Your task to perform on an android device: set an alarm Image 0: 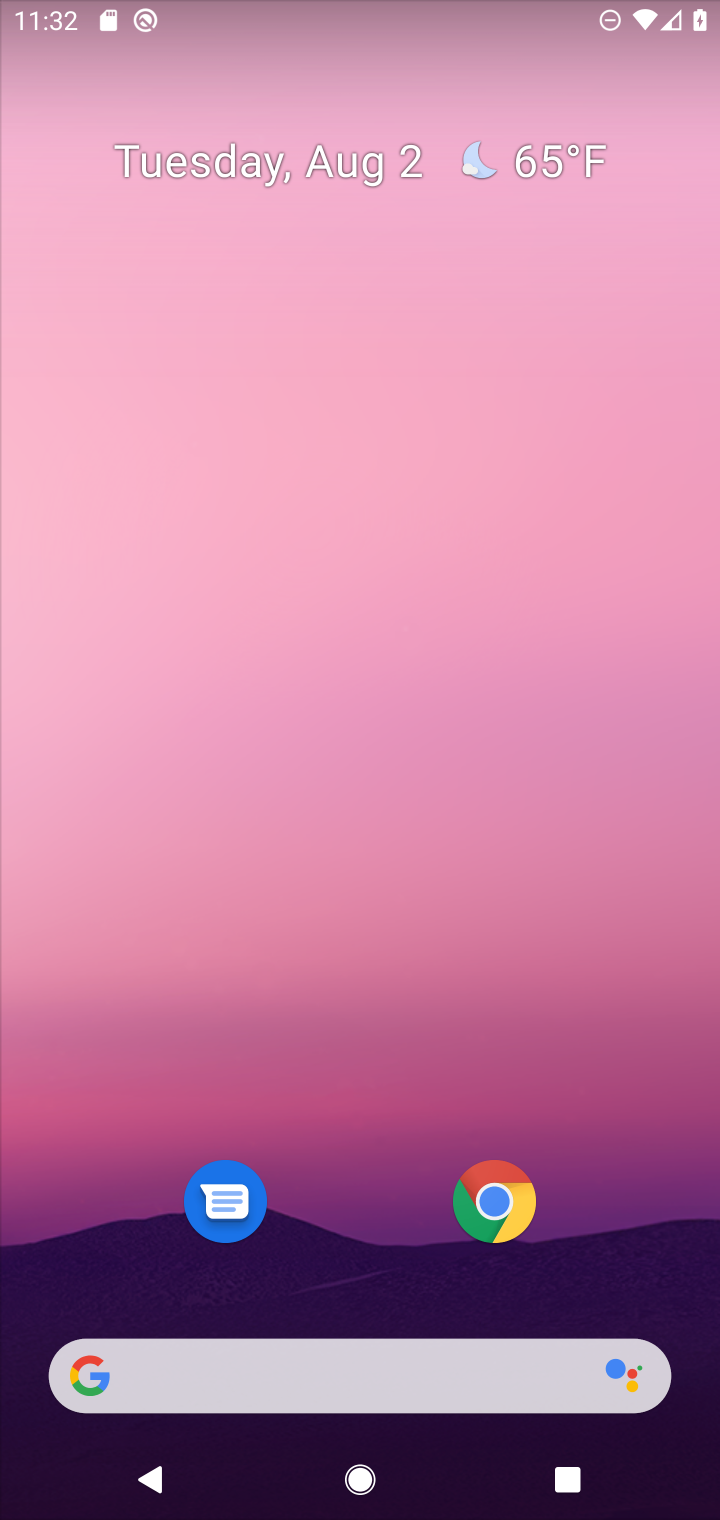
Step 0: drag from (325, 1332) to (339, 144)
Your task to perform on an android device: set an alarm Image 1: 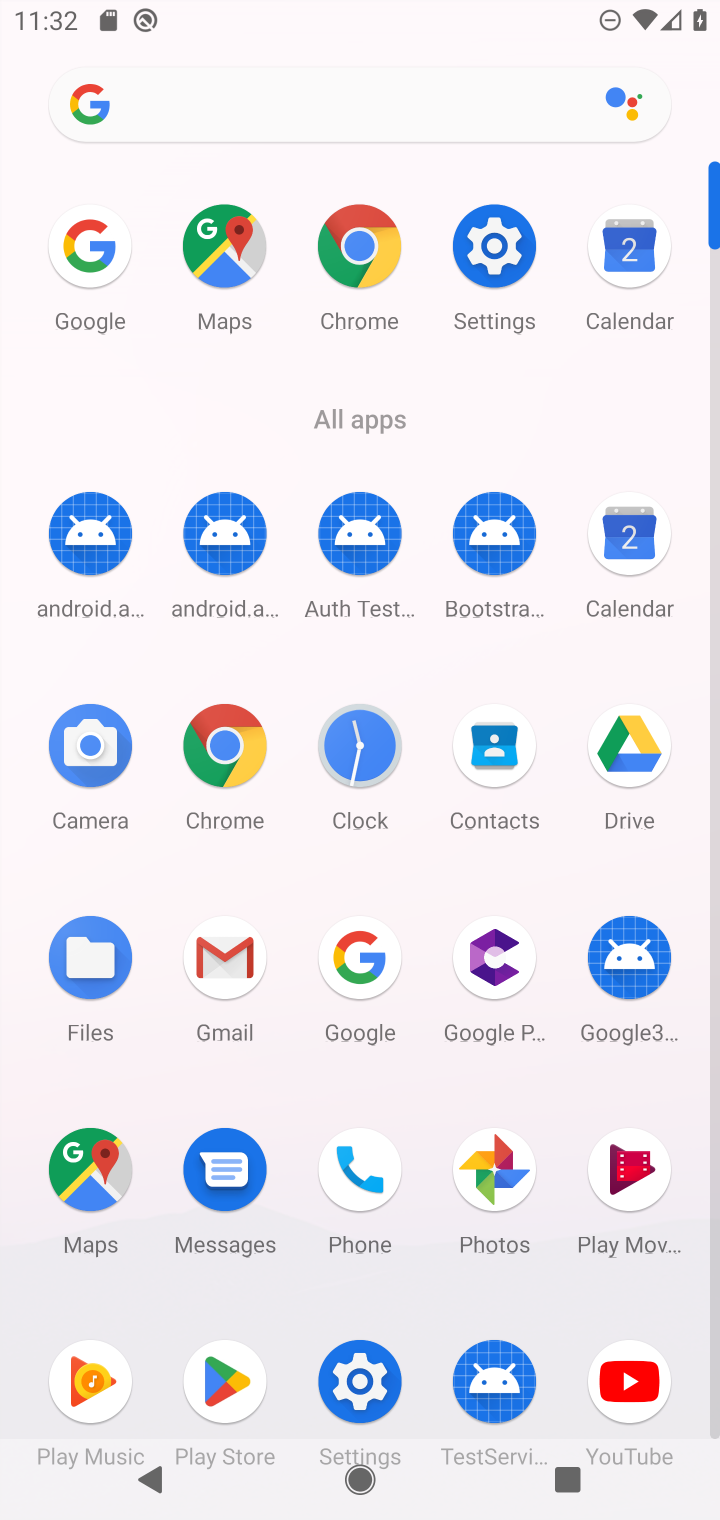
Step 1: click (338, 773)
Your task to perform on an android device: set an alarm Image 2: 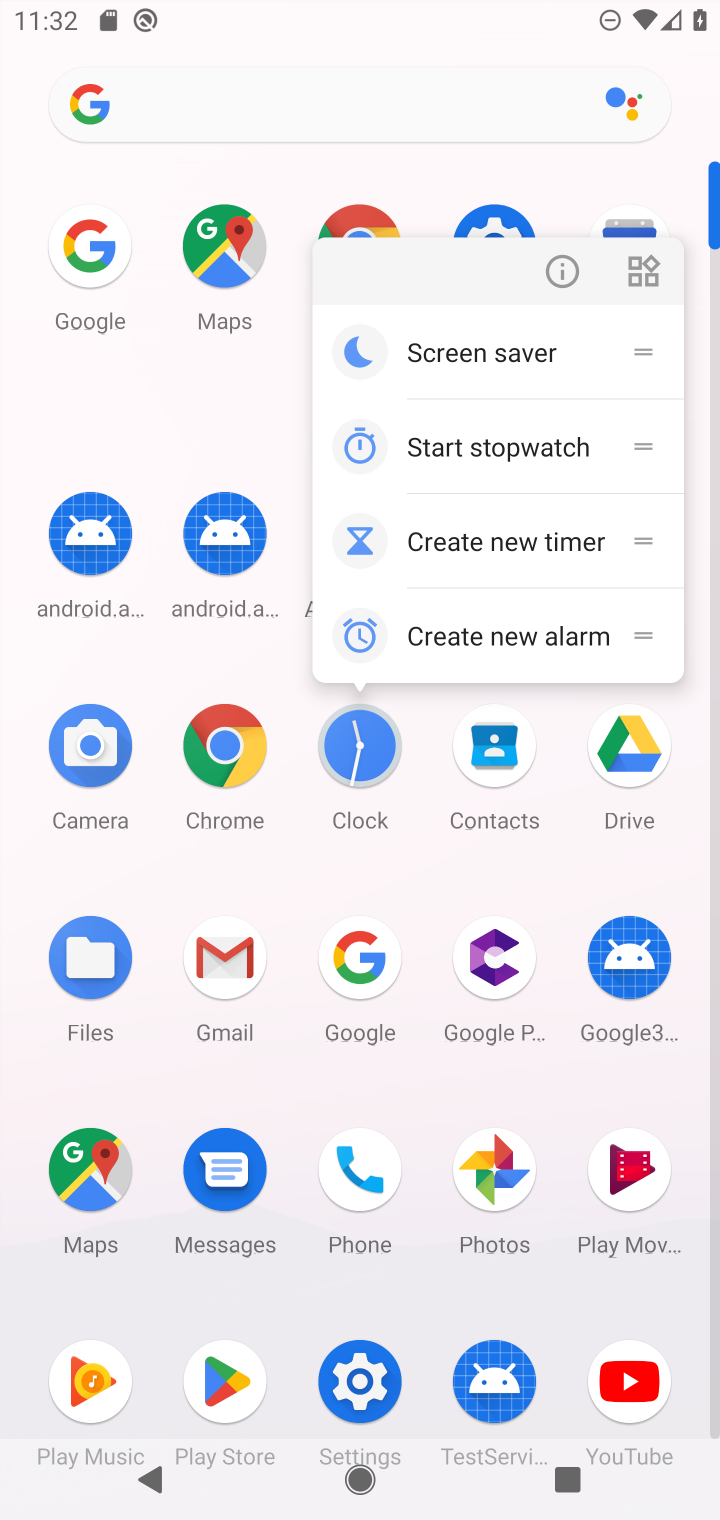
Step 2: click (353, 781)
Your task to perform on an android device: set an alarm Image 3: 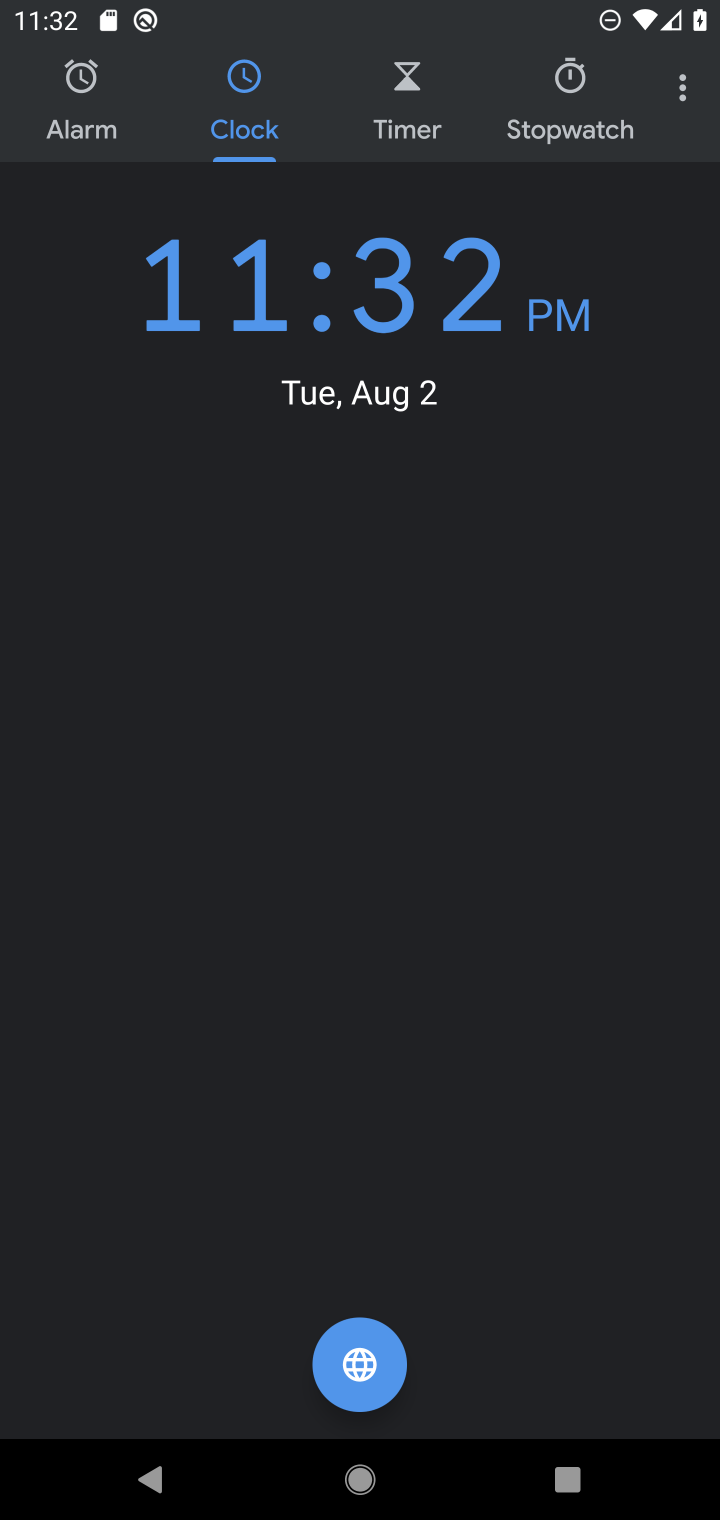
Step 3: click (96, 99)
Your task to perform on an android device: set an alarm Image 4: 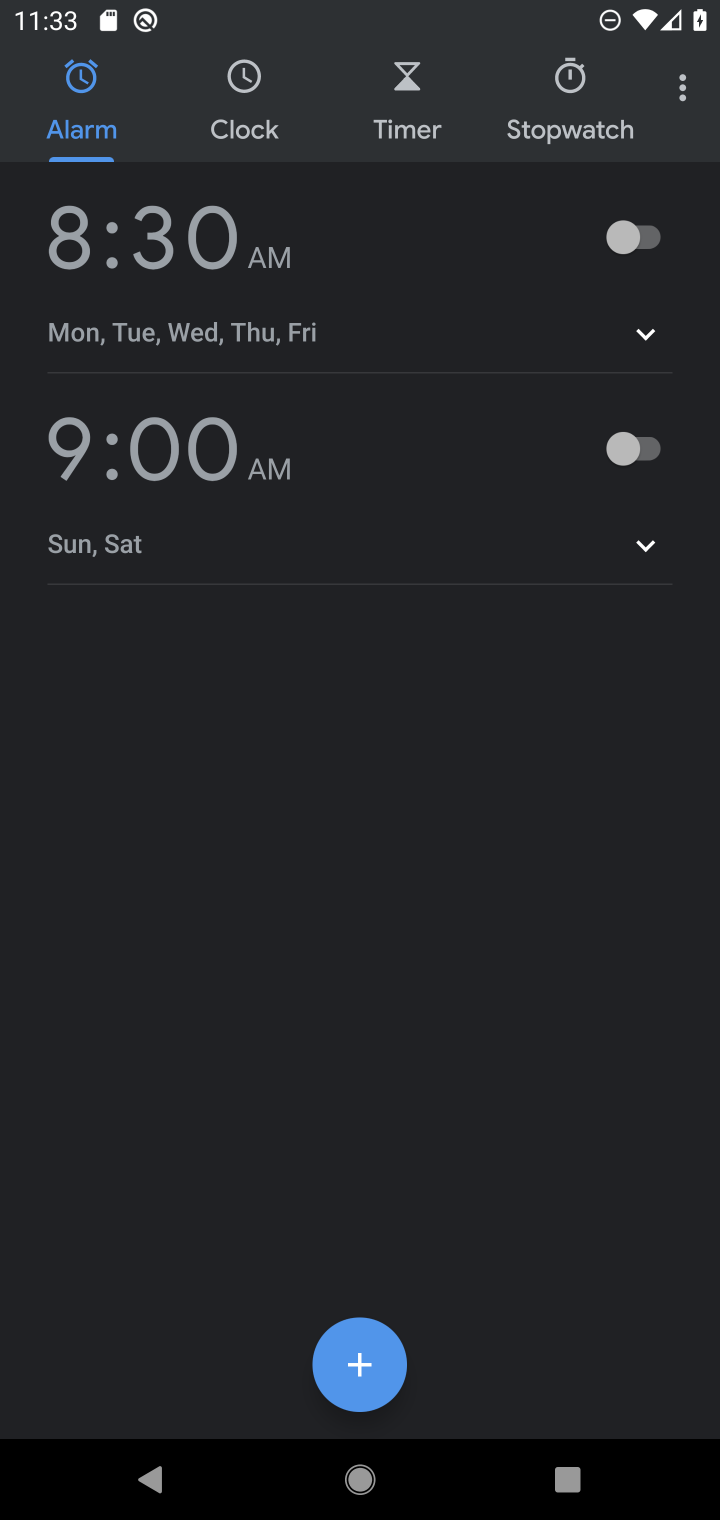
Step 4: click (325, 1395)
Your task to perform on an android device: set an alarm Image 5: 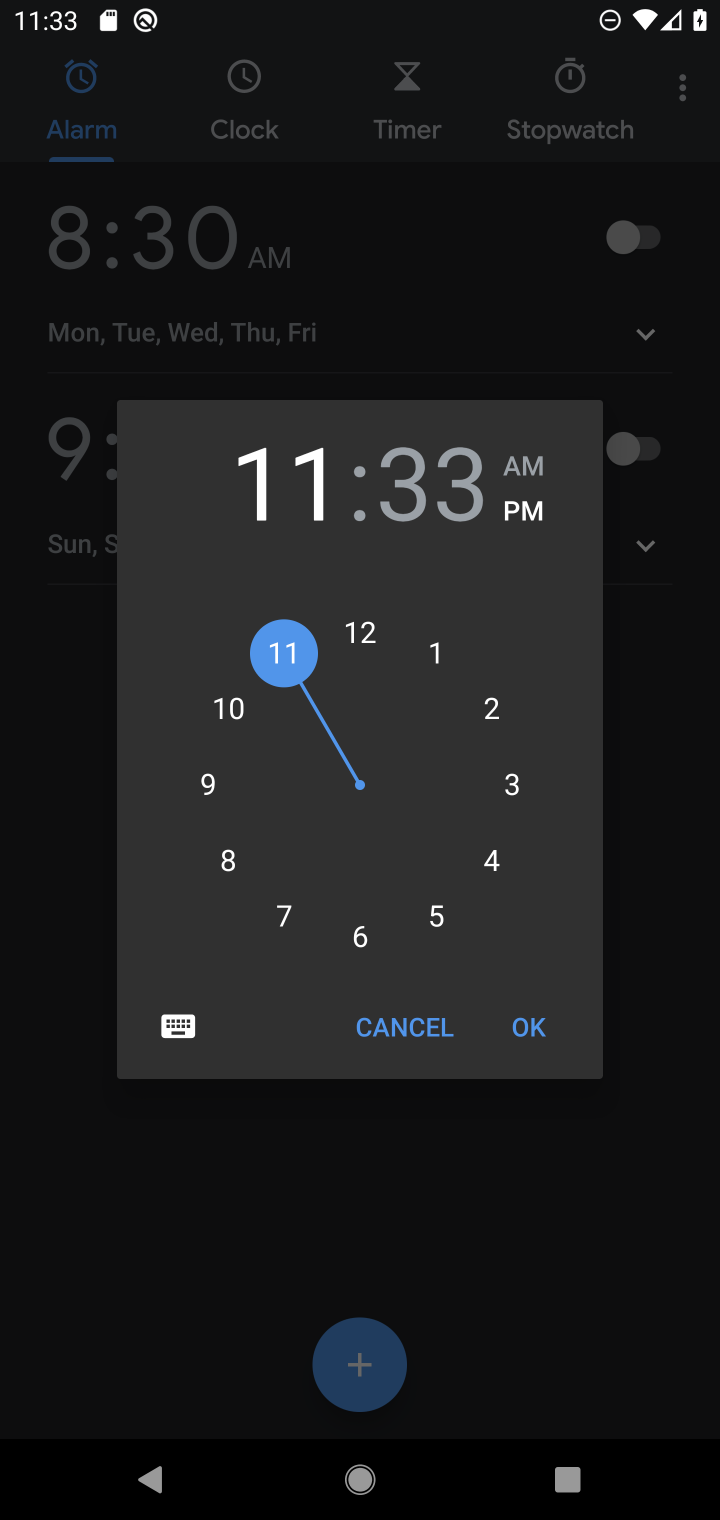
Step 5: click (527, 1037)
Your task to perform on an android device: set an alarm Image 6: 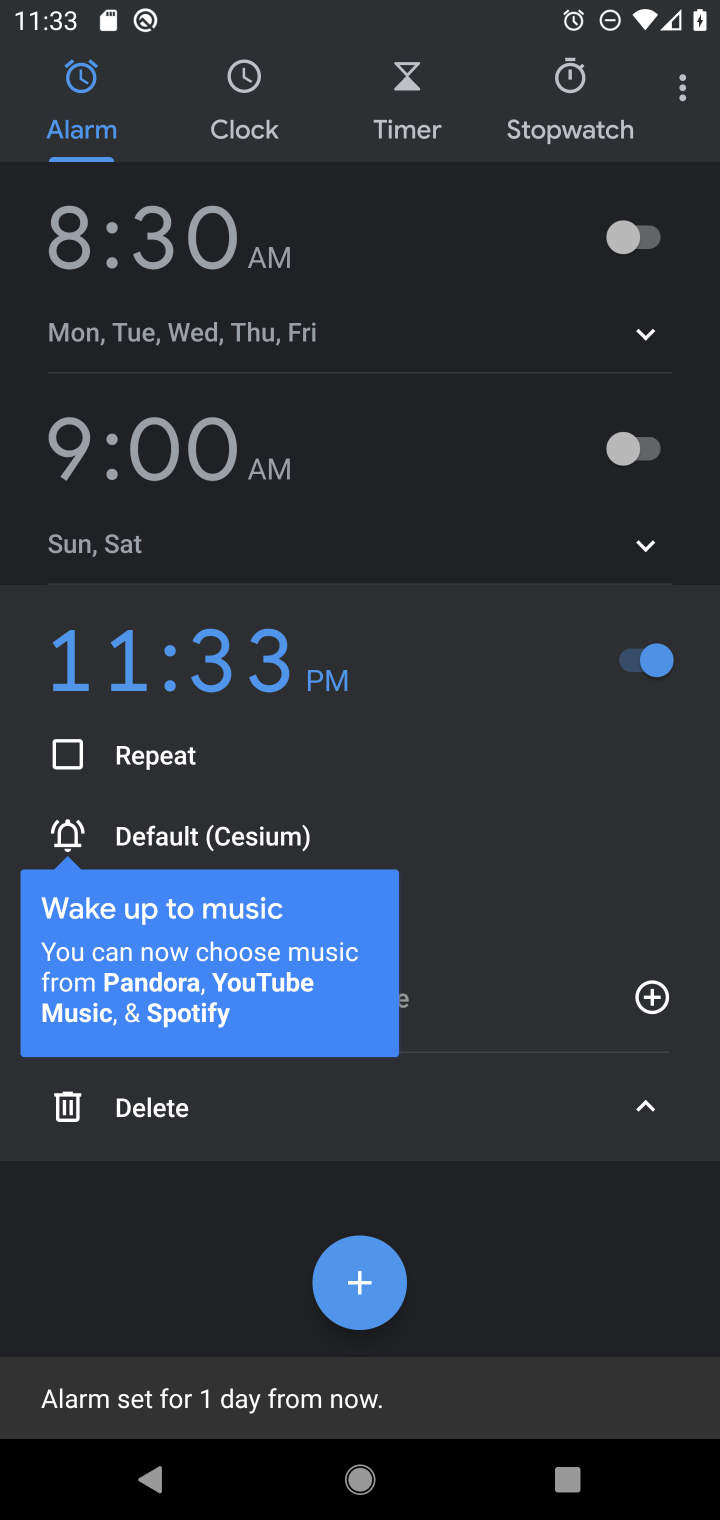
Step 6: task complete